Your task to perform on an android device: What is the recent news? Image 0: 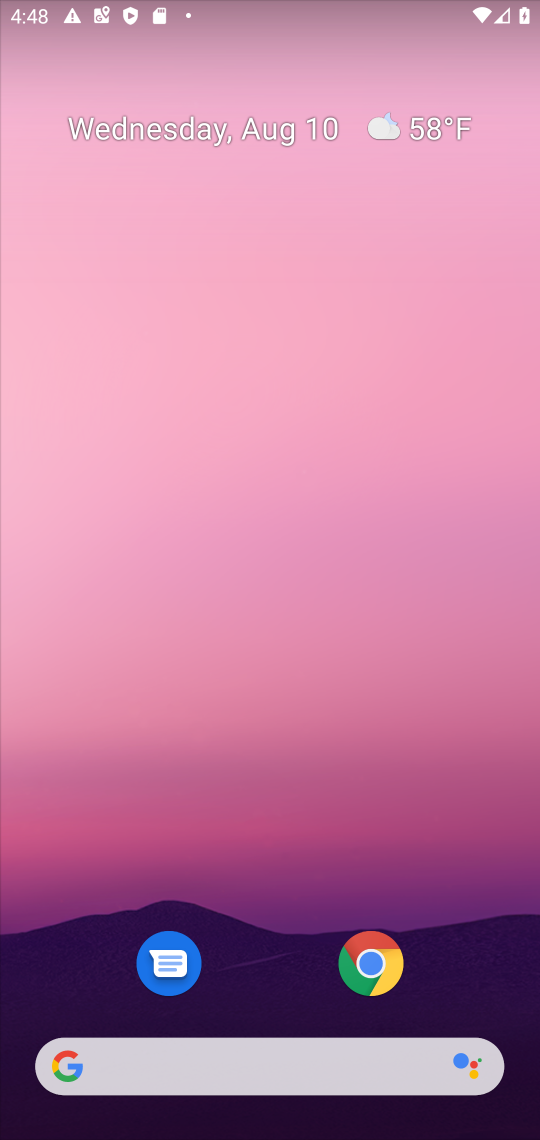
Step 0: drag from (282, 972) to (233, 18)
Your task to perform on an android device: What is the recent news? Image 1: 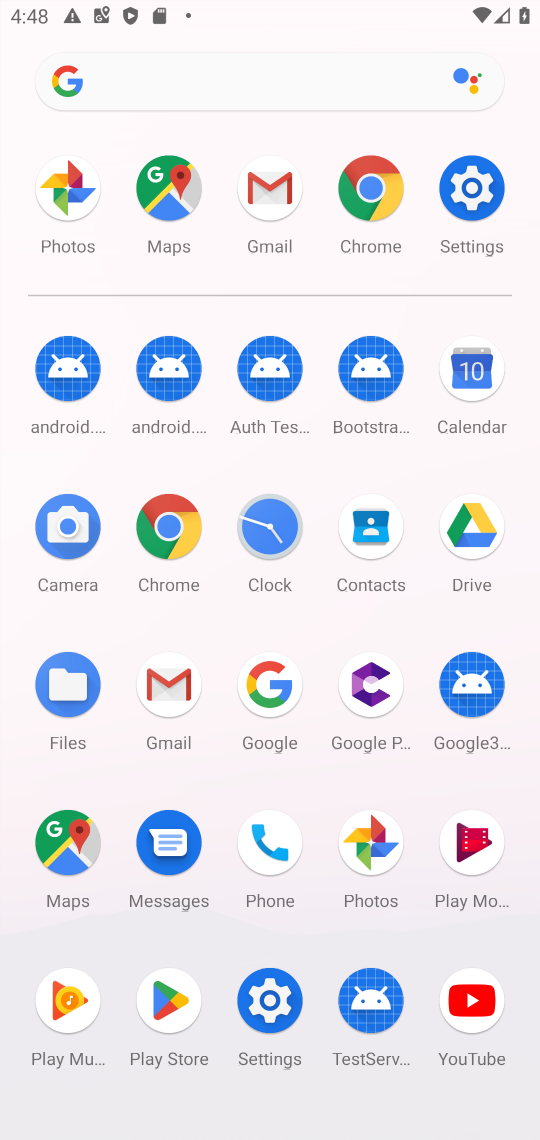
Step 1: click (173, 527)
Your task to perform on an android device: What is the recent news? Image 2: 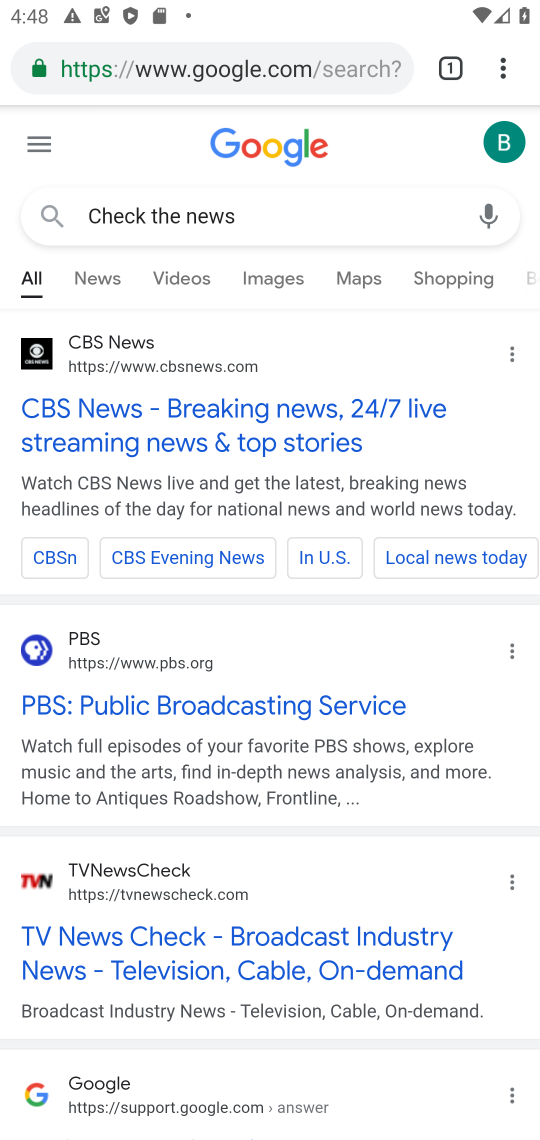
Step 2: click (92, 285)
Your task to perform on an android device: What is the recent news? Image 3: 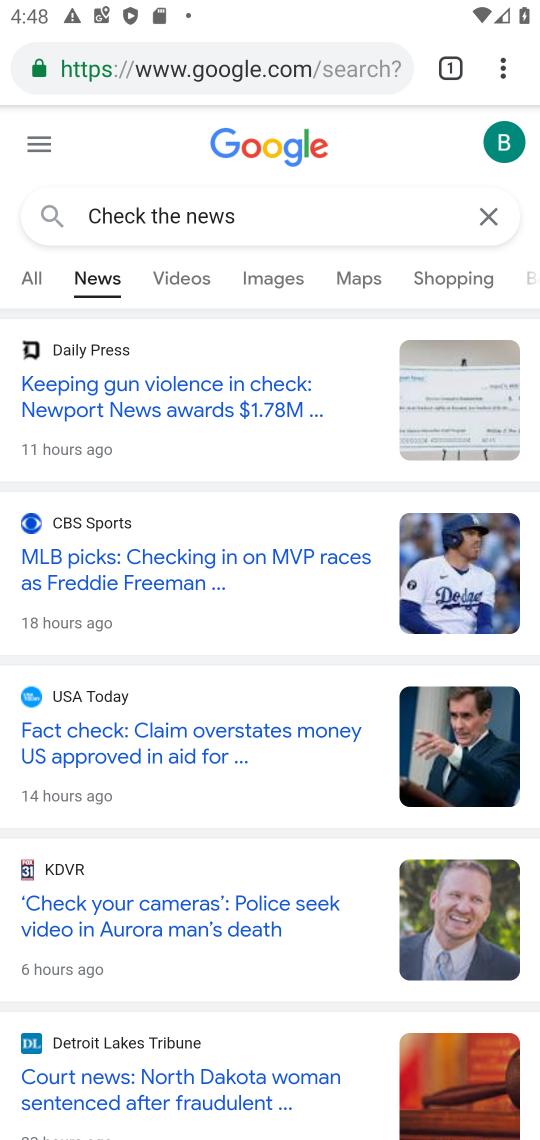
Step 3: click (227, 58)
Your task to perform on an android device: What is the recent news? Image 4: 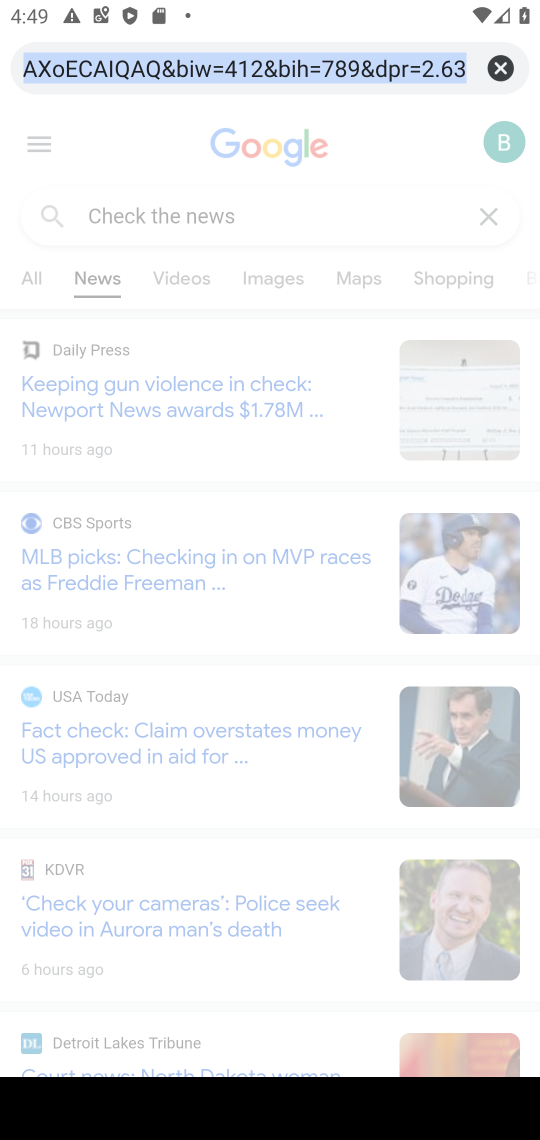
Step 4: type "What is the recent news?"
Your task to perform on an android device: What is the recent news? Image 5: 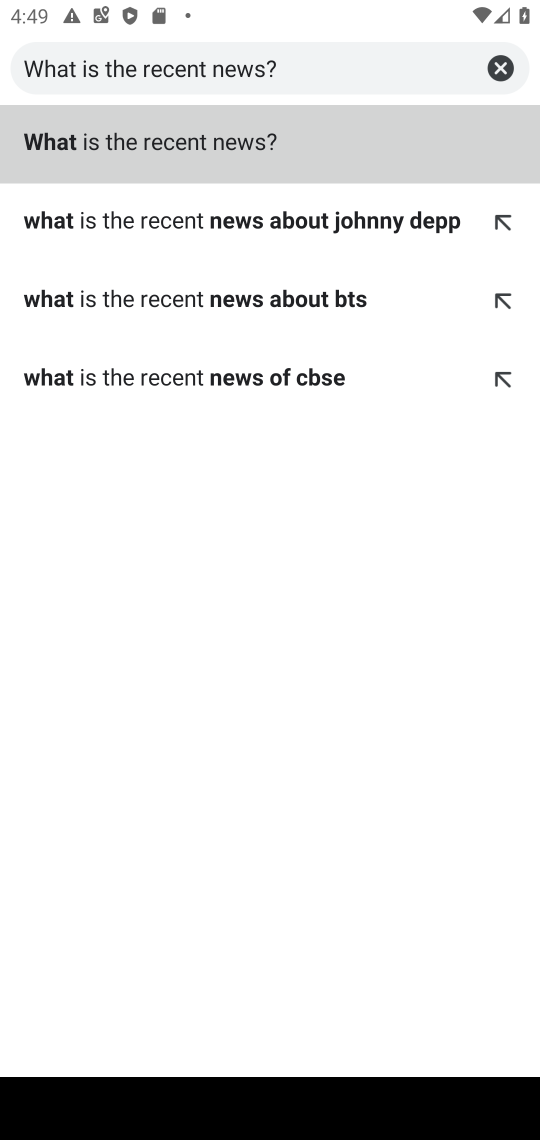
Step 5: click (161, 138)
Your task to perform on an android device: What is the recent news? Image 6: 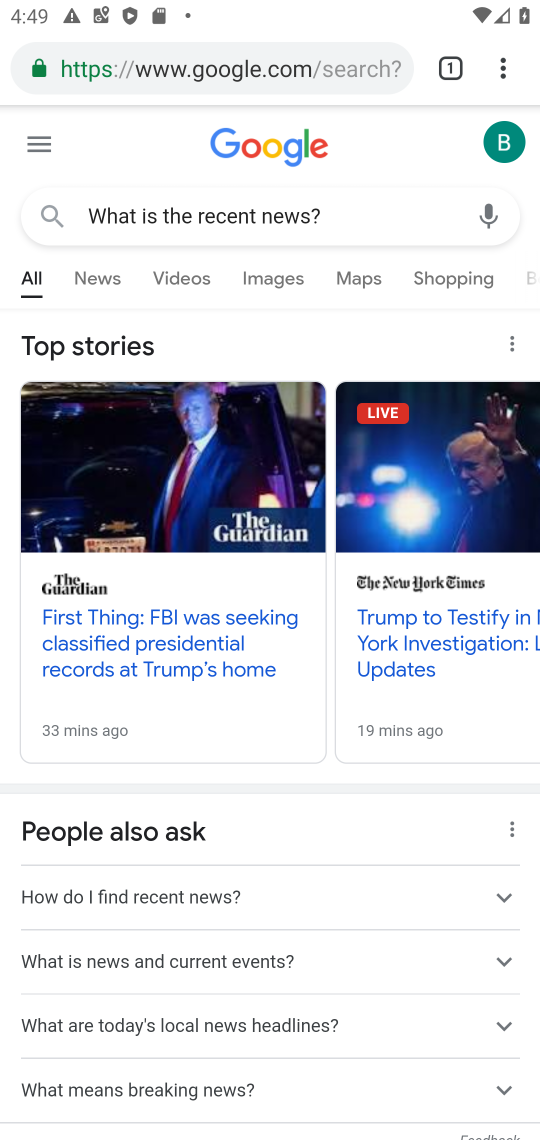
Step 6: click (78, 276)
Your task to perform on an android device: What is the recent news? Image 7: 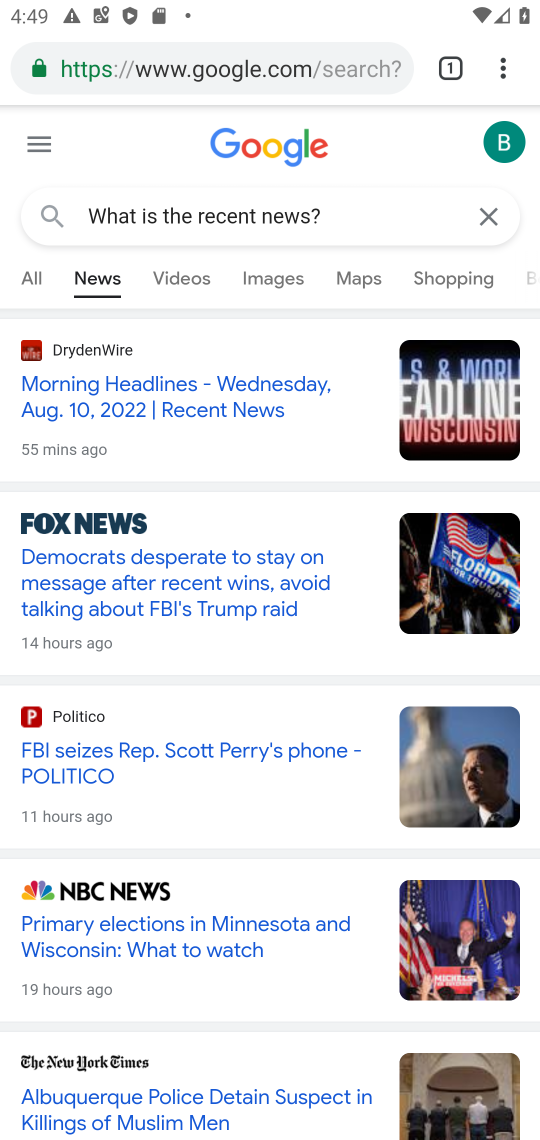
Step 7: task complete